Your task to perform on an android device: Open calendar and show me the first week of next month Image 0: 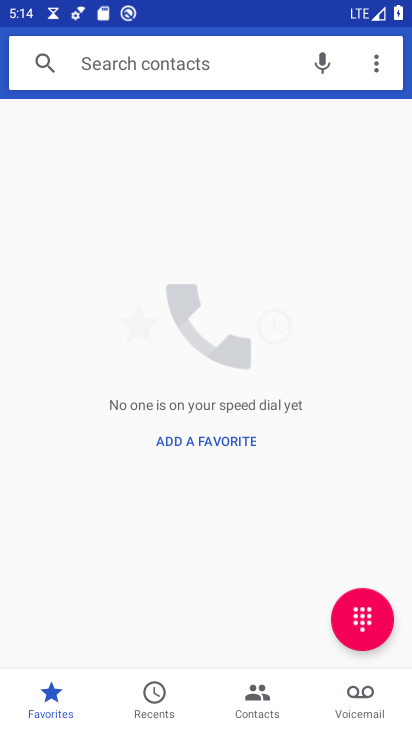
Step 0: press home button
Your task to perform on an android device: Open calendar and show me the first week of next month Image 1: 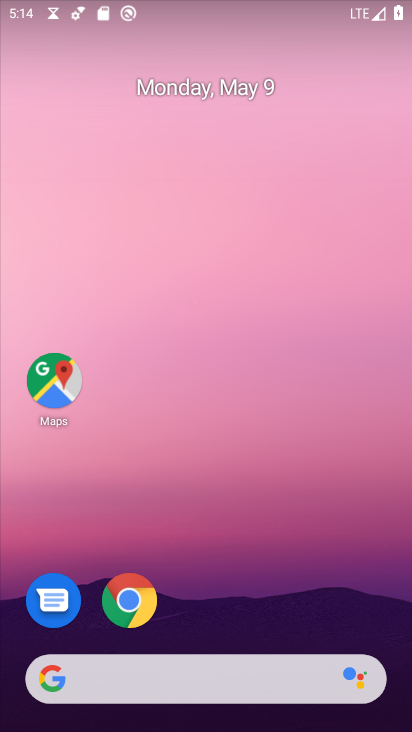
Step 1: drag from (223, 650) to (269, 29)
Your task to perform on an android device: Open calendar and show me the first week of next month Image 2: 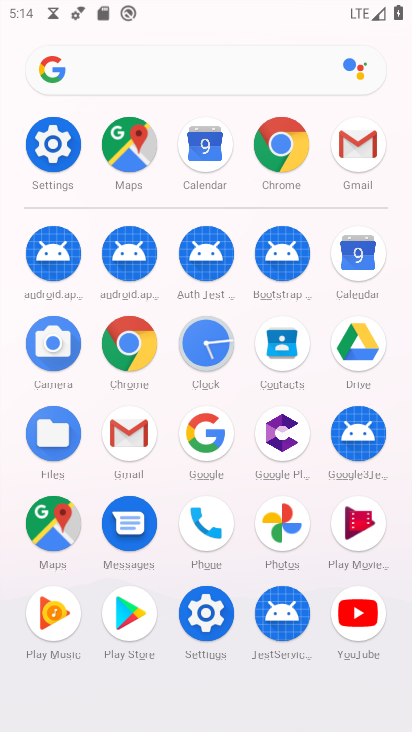
Step 2: click (355, 269)
Your task to perform on an android device: Open calendar and show me the first week of next month Image 3: 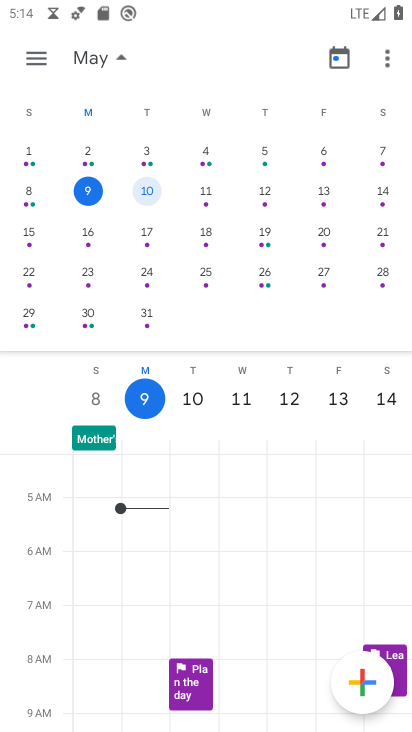
Step 3: drag from (398, 259) to (4, 256)
Your task to perform on an android device: Open calendar and show me the first week of next month Image 4: 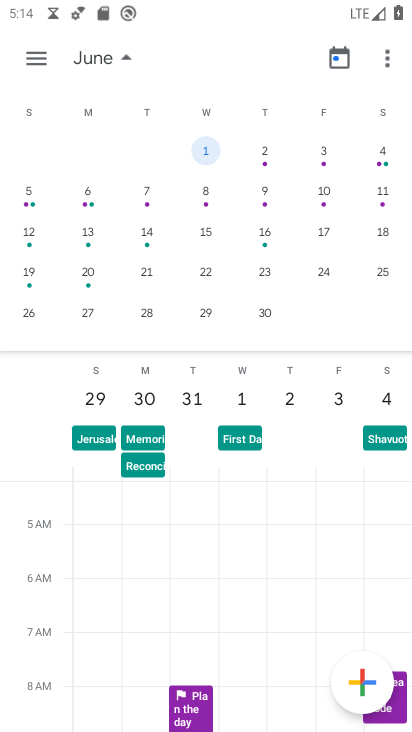
Step 4: click (377, 157)
Your task to perform on an android device: Open calendar and show me the first week of next month Image 5: 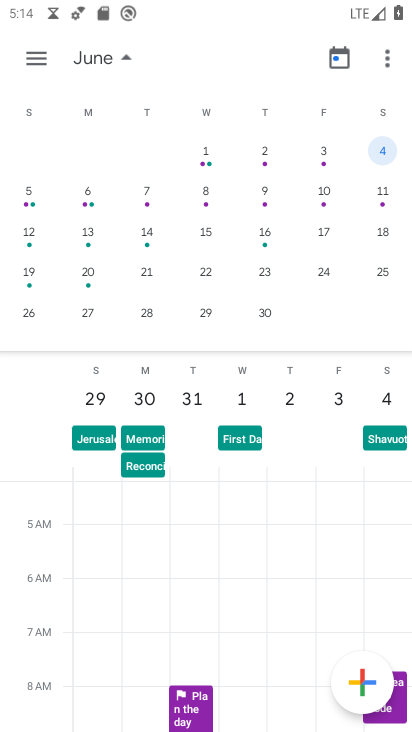
Step 5: click (43, 55)
Your task to perform on an android device: Open calendar and show me the first week of next month Image 6: 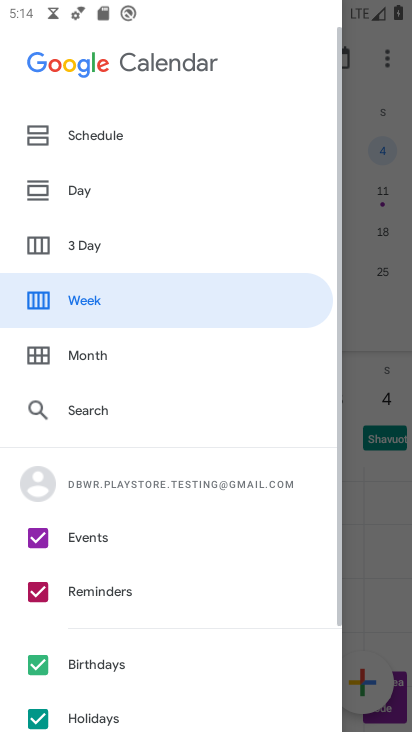
Step 6: click (85, 303)
Your task to perform on an android device: Open calendar and show me the first week of next month Image 7: 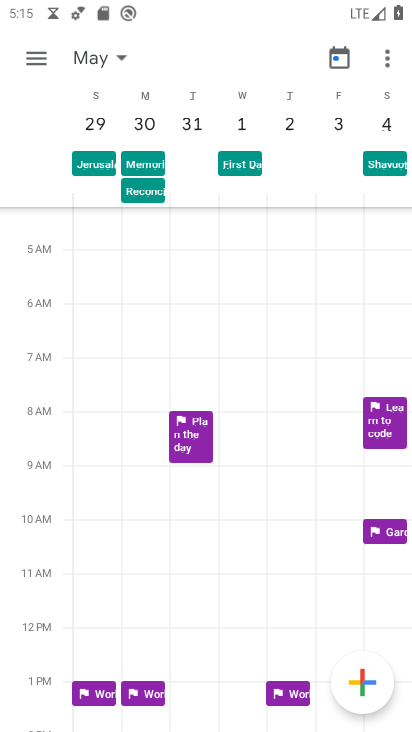
Step 7: task complete